Your task to perform on an android device: Go to internet settings Image 0: 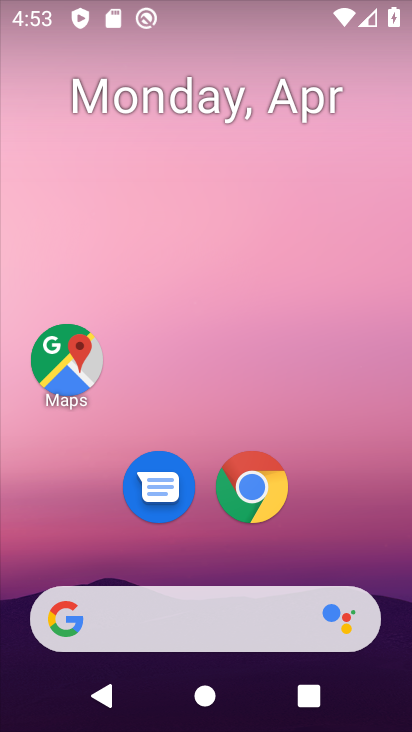
Step 0: drag from (386, 533) to (307, 128)
Your task to perform on an android device: Go to internet settings Image 1: 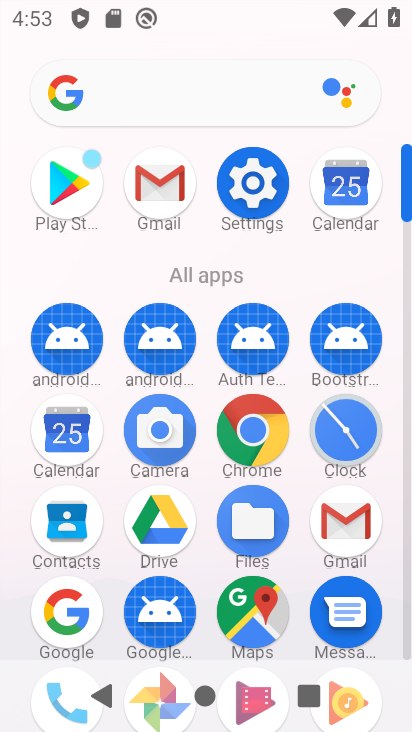
Step 1: click (255, 178)
Your task to perform on an android device: Go to internet settings Image 2: 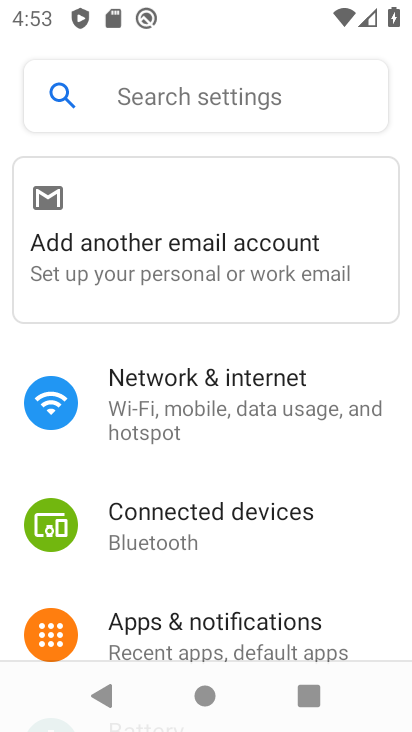
Step 2: click (312, 381)
Your task to perform on an android device: Go to internet settings Image 3: 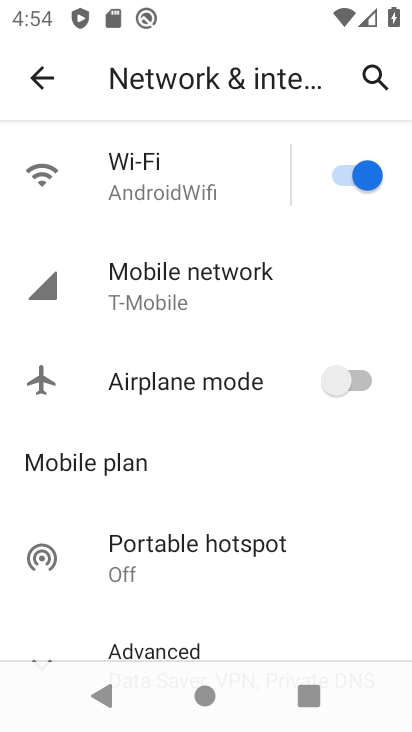
Step 3: task complete